Your task to perform on an android device: toggle show notifications on the lock screen Image 0: 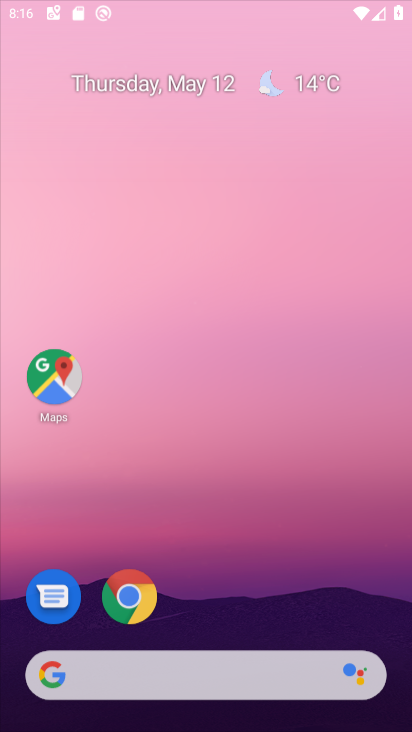
Step 0: drag from (336, 662) to (164, 141)
Your task to perform on an android device: toggle show notifications on the lock screen Image 1: 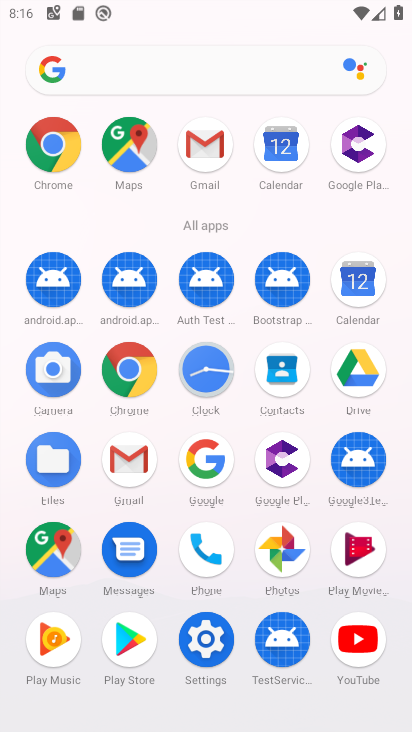
Step 1: click (208, 630)
Your task to perform on an android device: toggle show notifications on the lock screen Image 2: 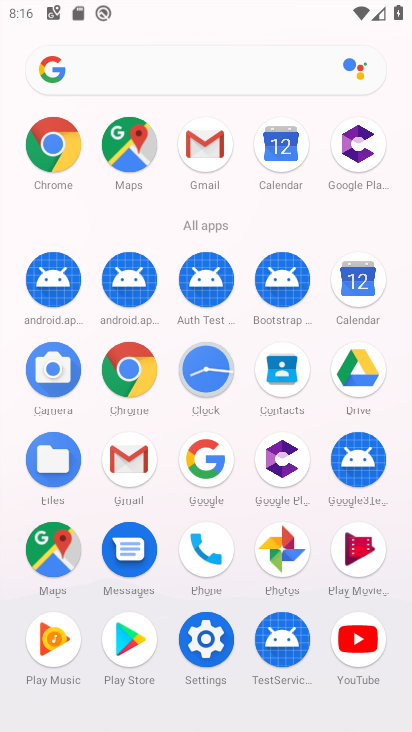
Step 2: click (211, 645)
Your task to perform on an android device: toggle show notifications on the lock screen Image 3: 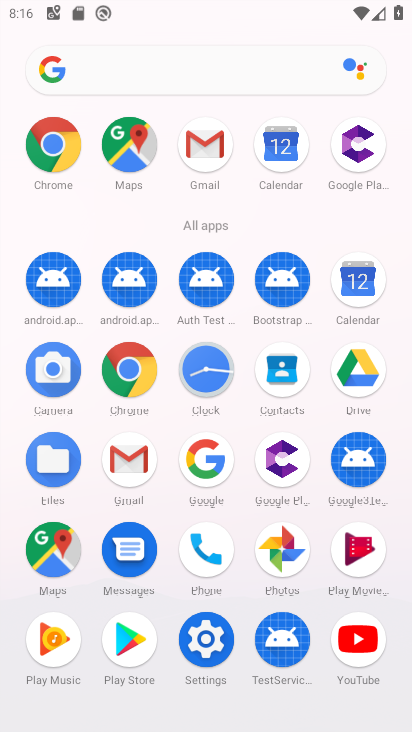
Step 3: click (212, 642)
Your task to perform on an android device: toggle show notifications on the lock screen Image 4: 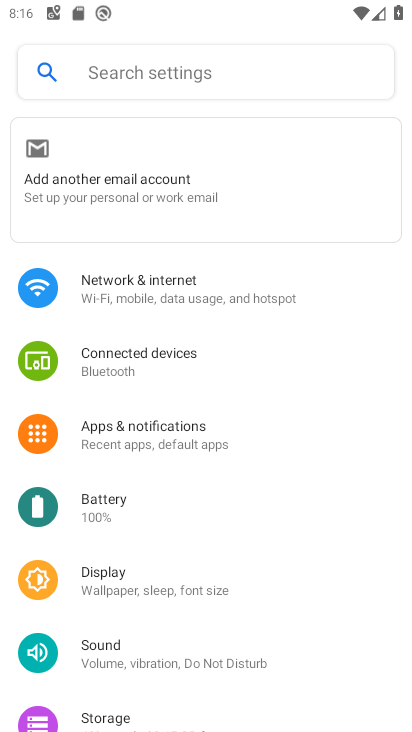
Step 4: click (139, 422)
Your task to perform on an android device: toggle show notifications on the lock screen Image 5: 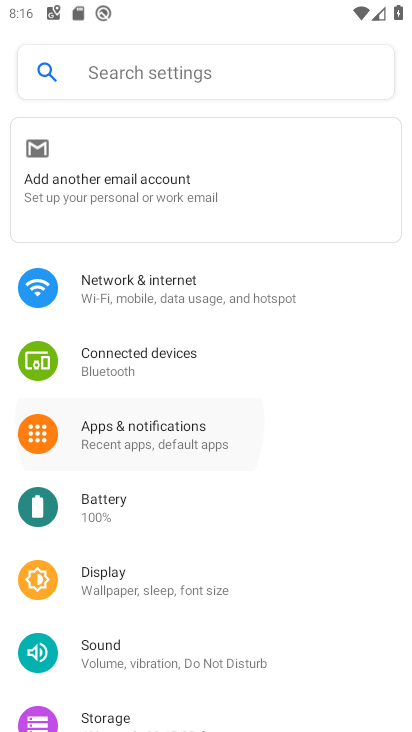
Step 5: click (139, 422)
Your task to perform on an android device: toggle show notifications on the lock screen Image 6: 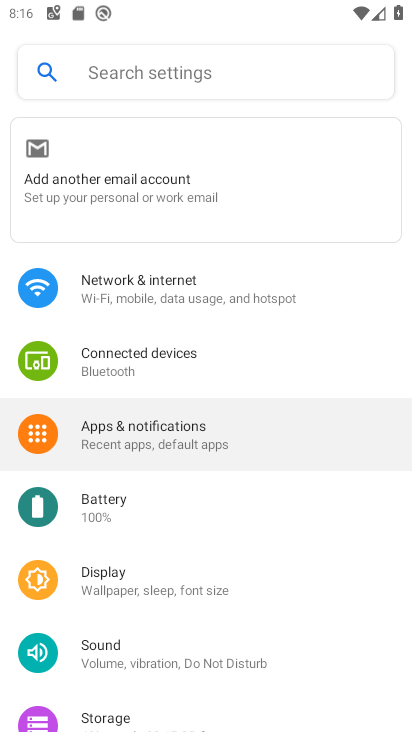
Step 6: click (139, 422)
Your task to perform on an android device: toggle show notifications on the lock screen Image 7: 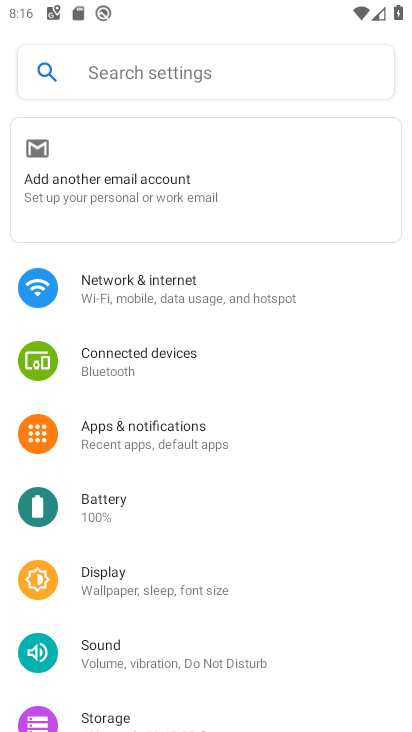
Step 7: click (139, 422)
Your task to perform on an android device: toggle show notifications on the lock screen Image 8: 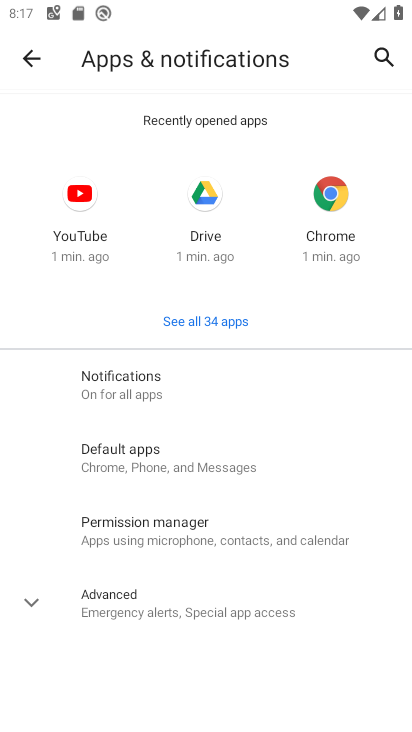
Step 8: click (114, 380)
Your task to perform on an android device: toggle show notifications on the lock screen Image 9: 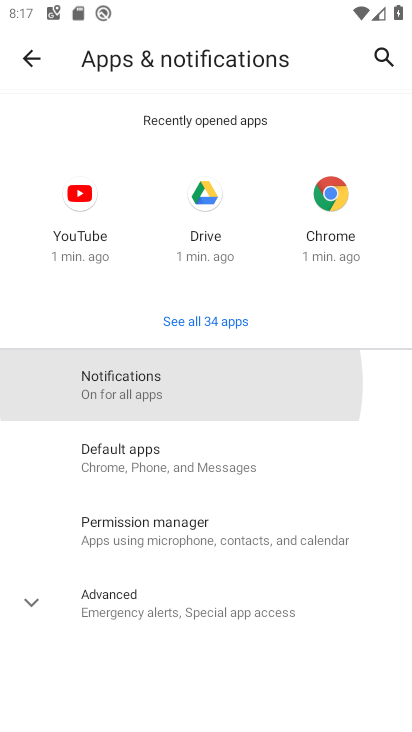
Step 9: click (116, 380)
Your task to perform on an android device: toggle show notifications on the lock screen Image 10: 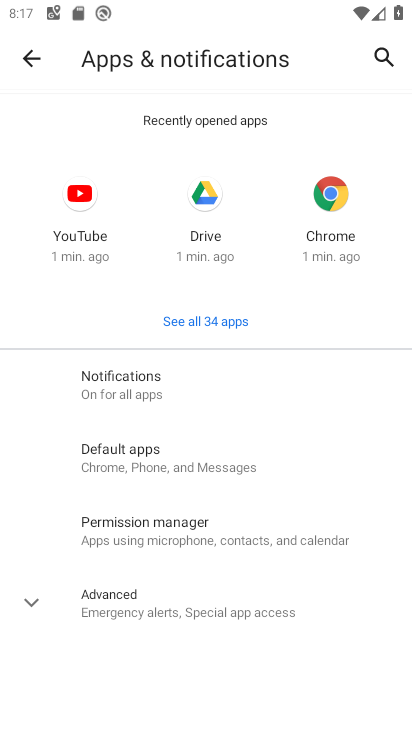
Step 10: click (118, 382)
Your task to perform on an android device: toggle show notifications on the lock screen Image 11: 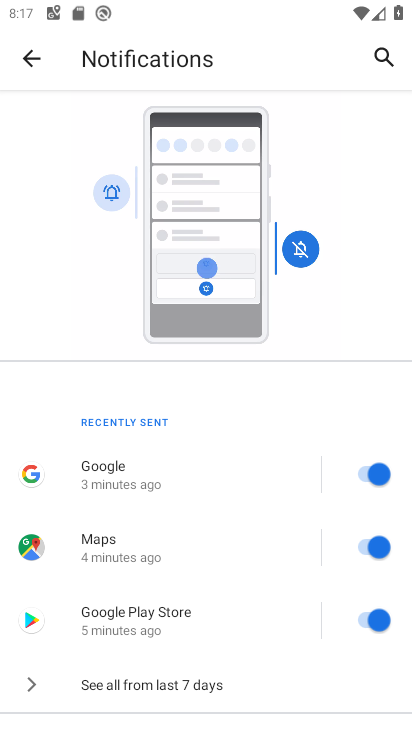
Step 11: drag from (218, 587) to (177, 105)
Your task to perform on an android device: toggle show notifications on the lock screen Image 12: 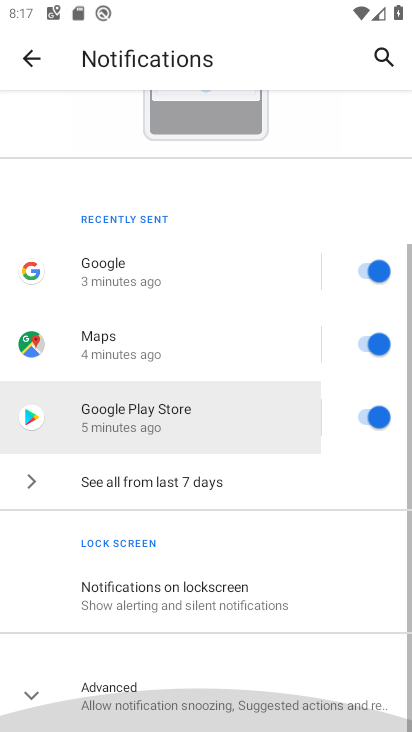
Step 12: drag from (180, 495) to (159, 23)
Your task to perform on an android device: toggle show notifications on the lock screen Image 13: 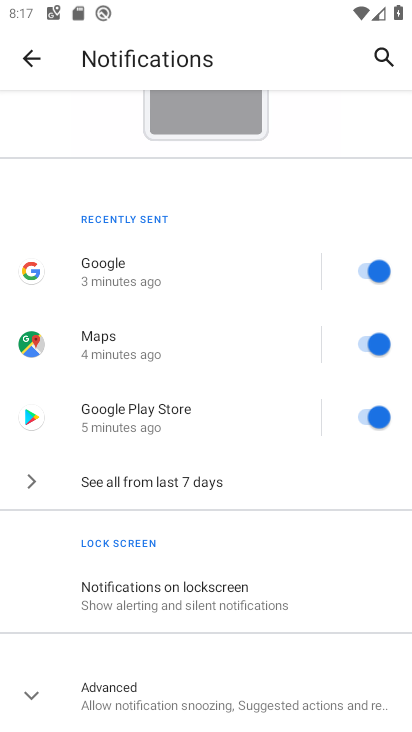
Step 13: drag from (160, 473) to (194, 116)
Your task to perform on an android device: toggle show notifications on the lock screen Image 14: 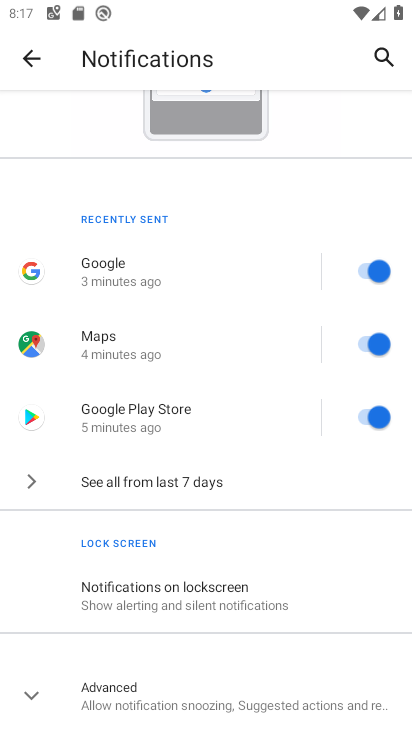
Step 14: click (142, 596)
Your task to perform on an android device: toggle show notifications on the lock screen Image 15: 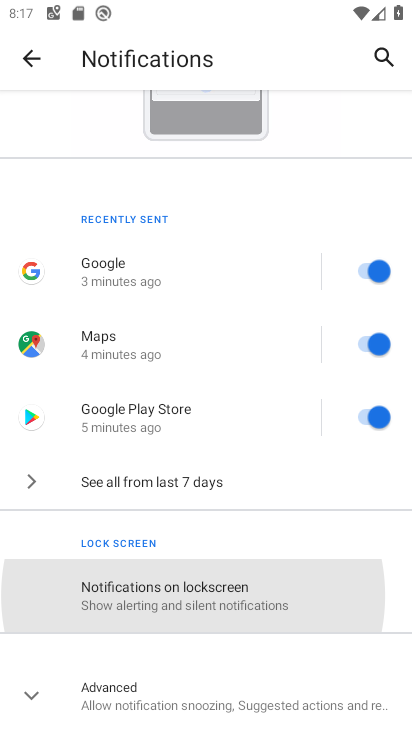
Step 15: click (144, 592)
Your task to perform on an android device: toggle show notifications on the lock screen Image 16: 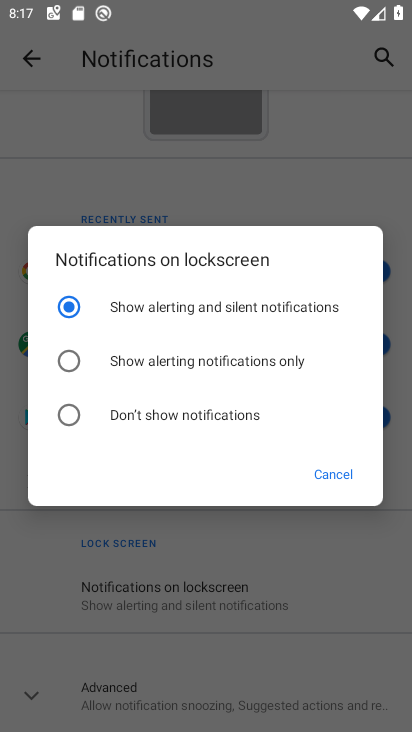
Step 16: click (293, 301)
Your task to perform on an android device: toggle show notifications on the lock screen Image 17: 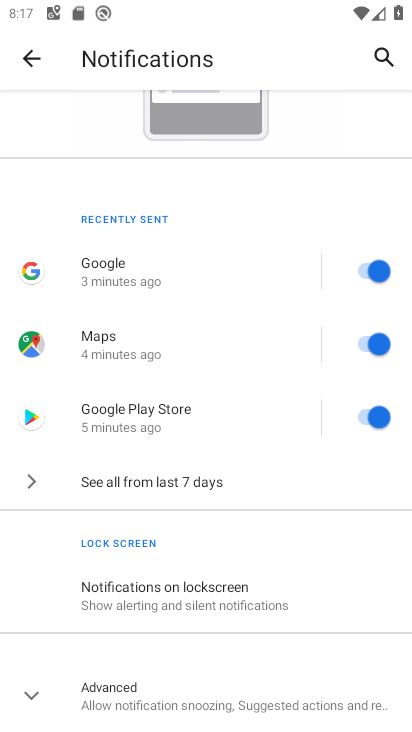
Step 17: task complete